Your task to perform on an android device: turn on showing notifications on the lock screen Image 0: 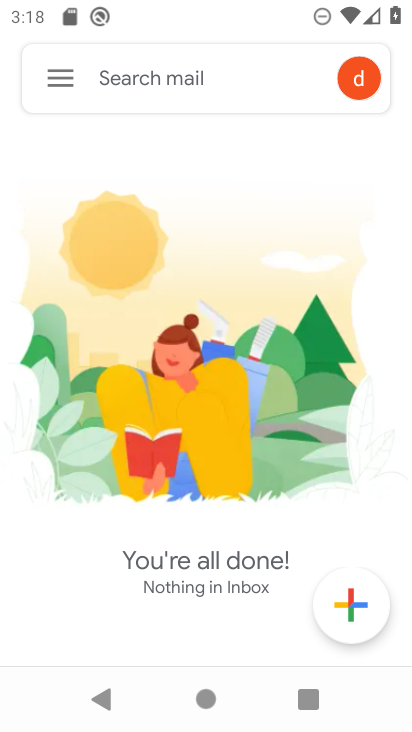
Step 0: press home button
Your task to perform on an android device: turn on showing notifications on the lock screen Image 1: 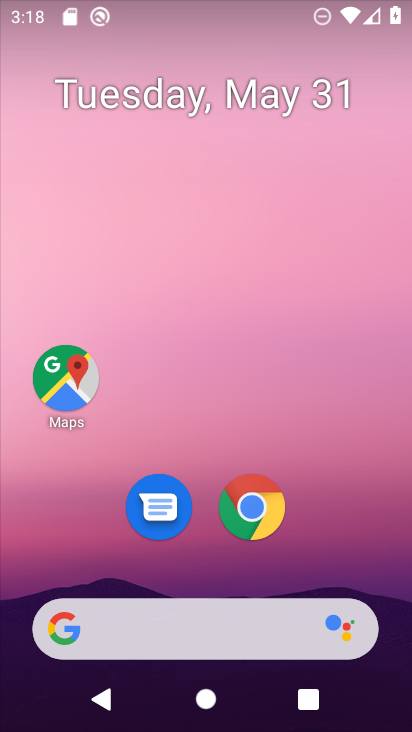
Step 1: drag from (159, 643) to (174, 39)
Your task to perform on an android device: turn on showing notifications on the lock screen Image 2: 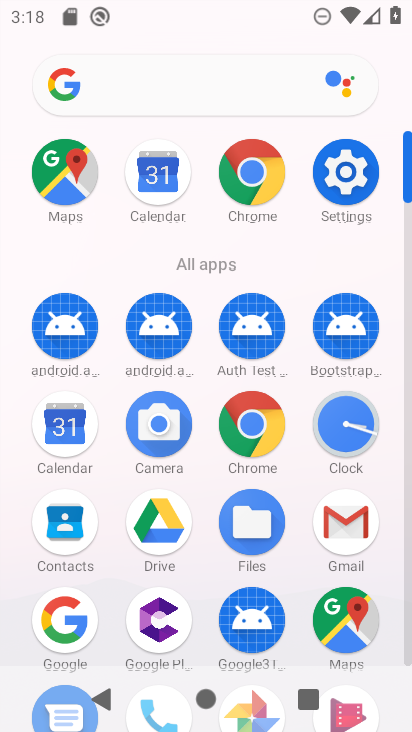
Step 2: click (337, 186)
Your task to perform on an android device: turn on showing notifications on the lock screen Image 3: 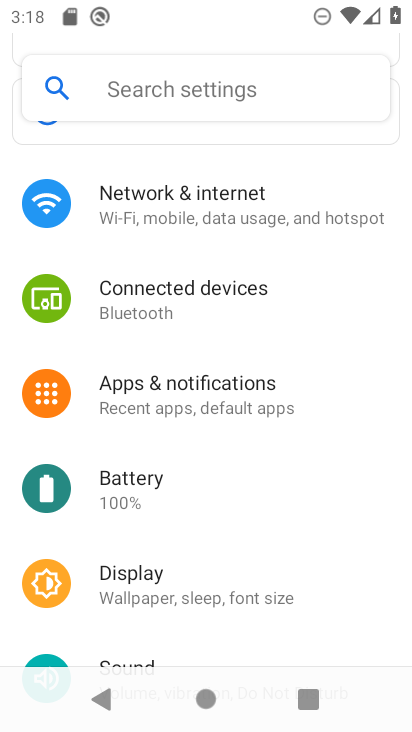
Step 3: click (160, 395)
Your task to perform on an android device: turn on showing notifications on the lock screen Image 4: 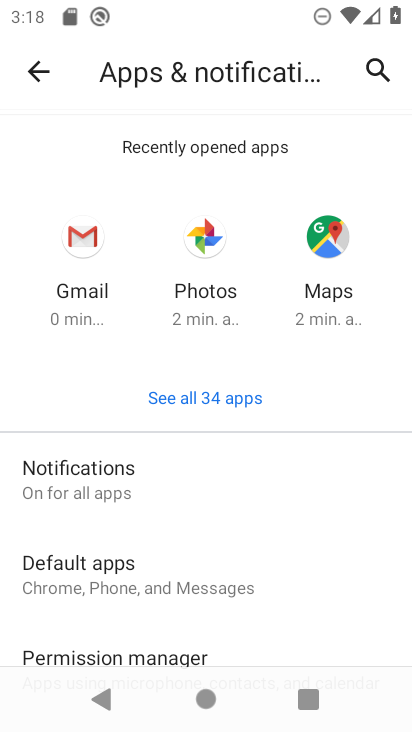
Step 4: click (97, 497)
Your task to perform on an android device: turn on showing notifications on the lock screen Image 5: 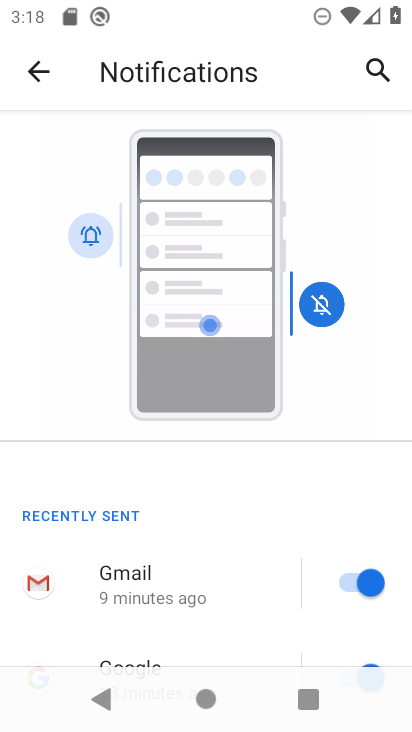
Step 5: drag from (204, 588) to (264, 196)
Your task to perform on an android device: turn on showing notifications on the lock screen Image 6: 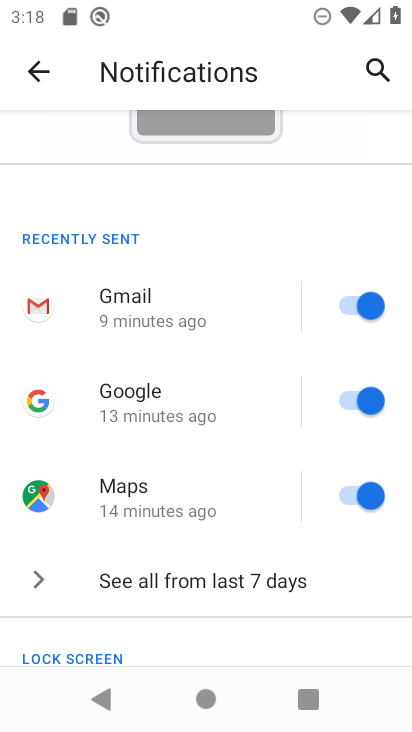
Step 6: drag from (171, 627) to (164, 235)
Your task to perform on an android device: turn on showing notifications on the lock screen Image 7: 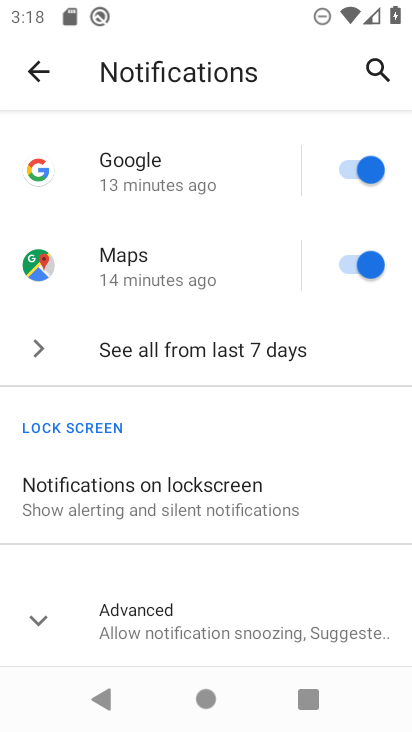
Step 7: click (120, 510)
Your task to perform on an android device: turn on showing notifications on the lock screen Image 8: 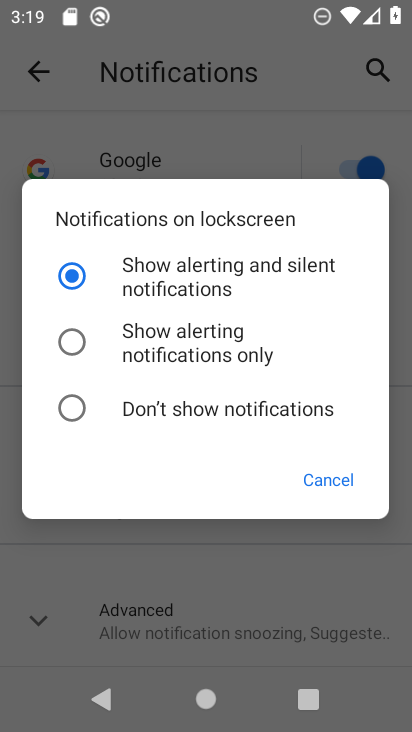
Step 8: task complete